Your task to perform on an android device: change the clock style Image 0: 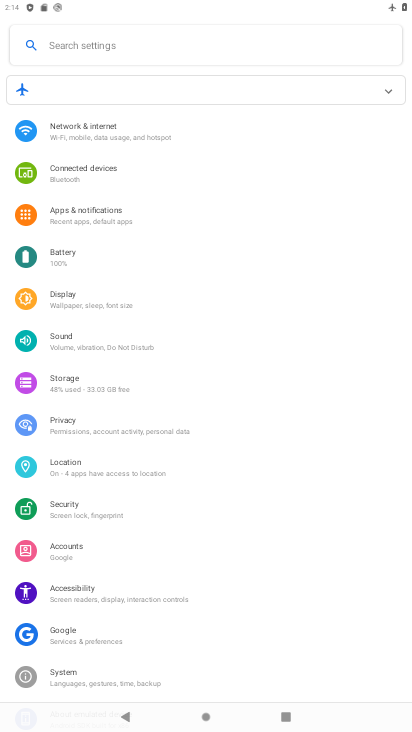
Step 0: press home button
Your task to perform on an android device: change the clock style Image 1: 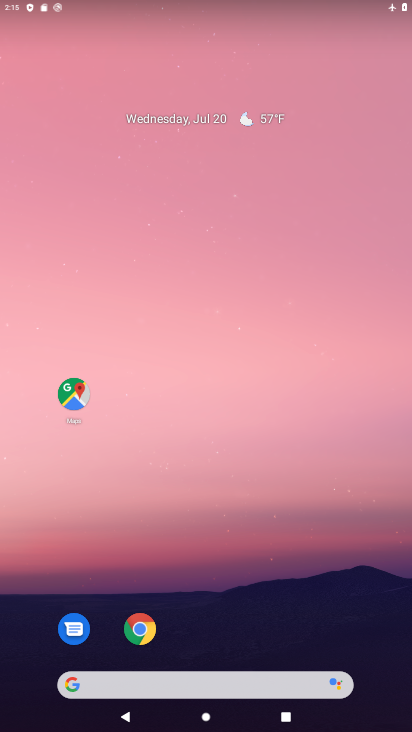
Step 1: drag from (181, 631) to (140, 184)
Your task to perform on an android device: change the clock style Image 2: 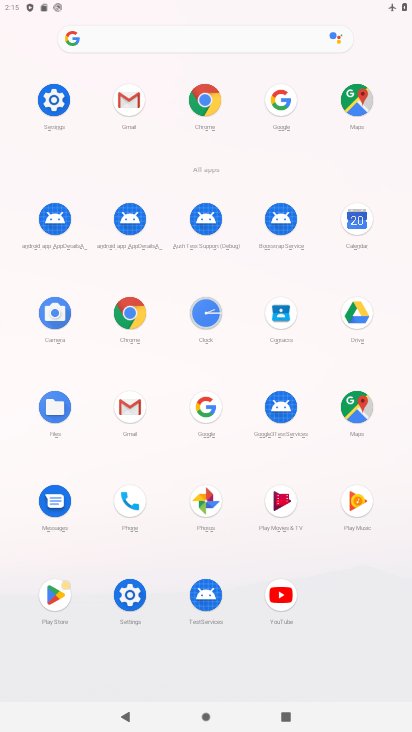
Step 2: click (217, 316)
Your task to perform on an android device: change the clock style Image 3: 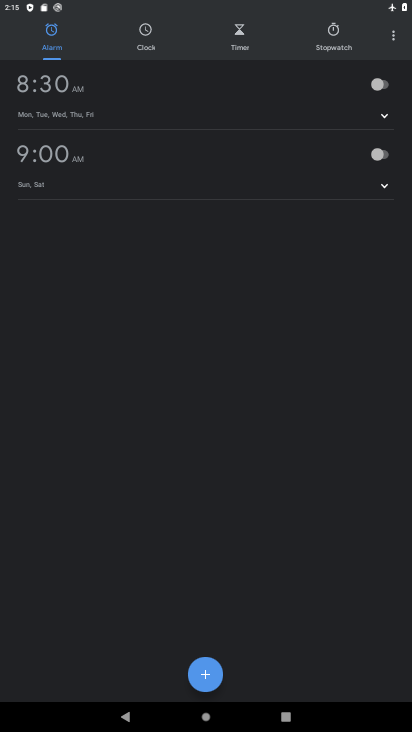
Step 3: click (389, 43)
Your task to perform on an android device: change the clock style Image 4: 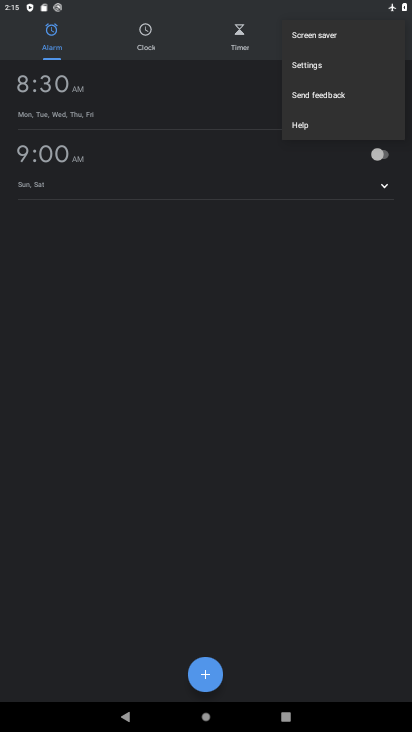
Step 4: click (345, 65)
Your task to perform on an android device: change the clock style Image 5: 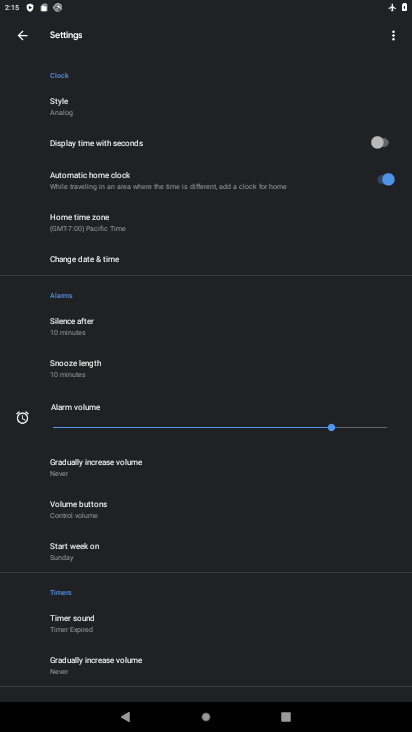
Step 5: click (98, 109)
Your task to perform on an android device: change the clock style Image 6: 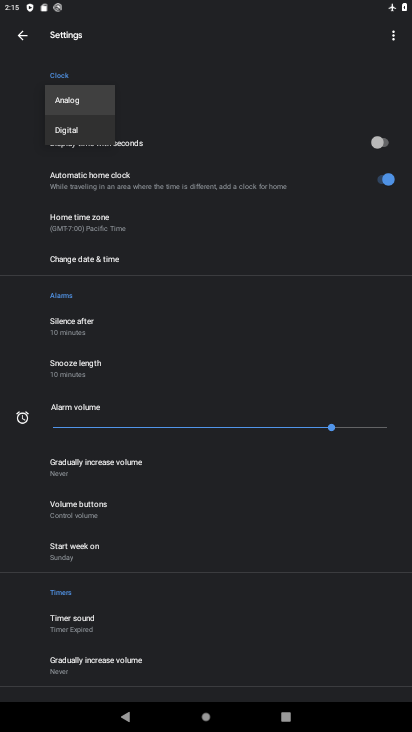
Step 6: click (93, 130)
Your task to perform on an android device: change the clock style Image 7: 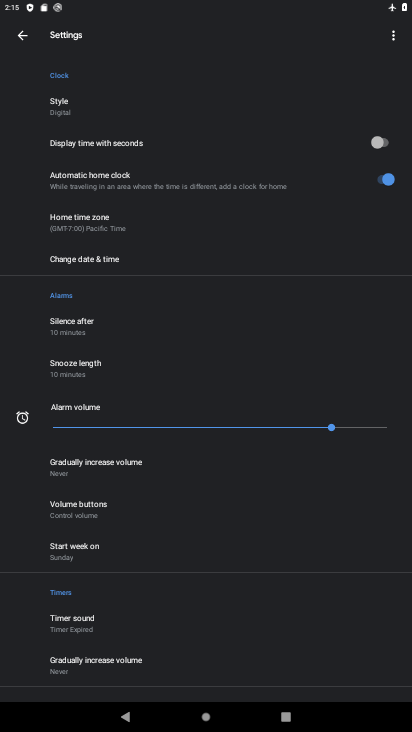
Step 7: task complete